Your task to perform on an android device: turn on sleep mode Image 0: 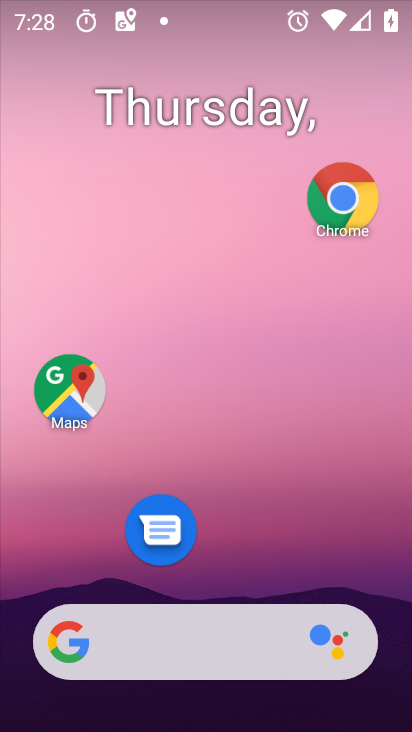
Step 0: drag from (250, 651) to (151, 245)
Your task to perform on an android device: turn on sleep mode Image 1: 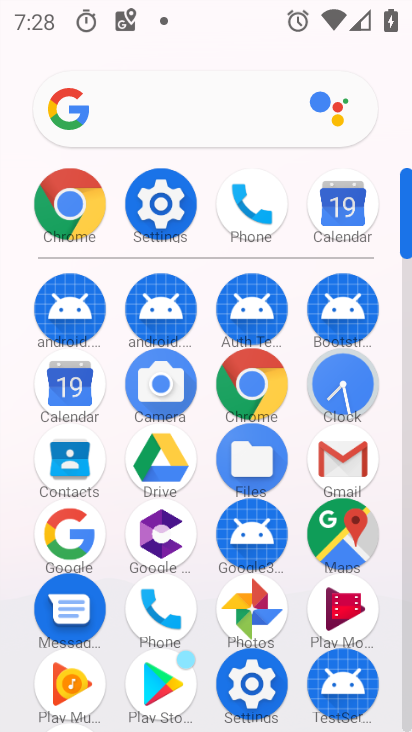
Step 1: click (142, 223)
Your task to perform on an android device: turn on sleep mode Image 2: 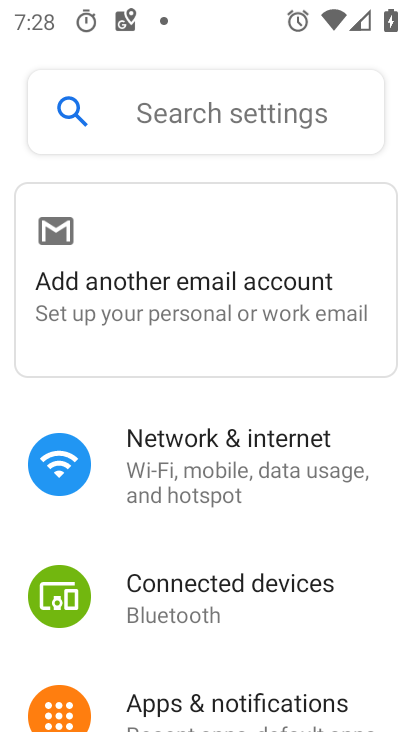
Step 2: click (154, 116)
Your task to perform on an android device: turn on sleep mode Image 3: 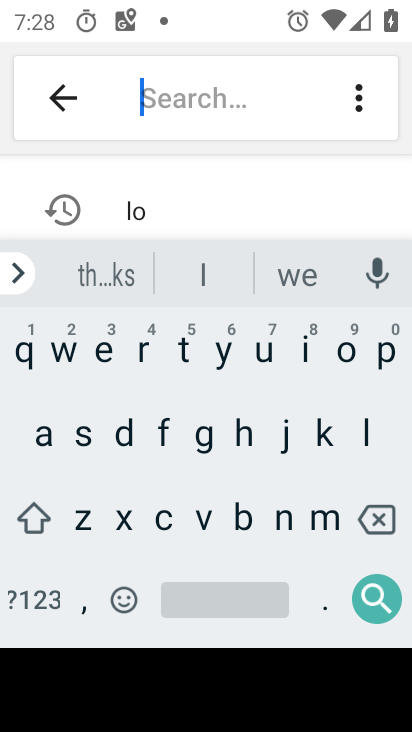
Step 3: click (81, 436)
Your task to perform on an android device: turn on sleep mode Image 4: 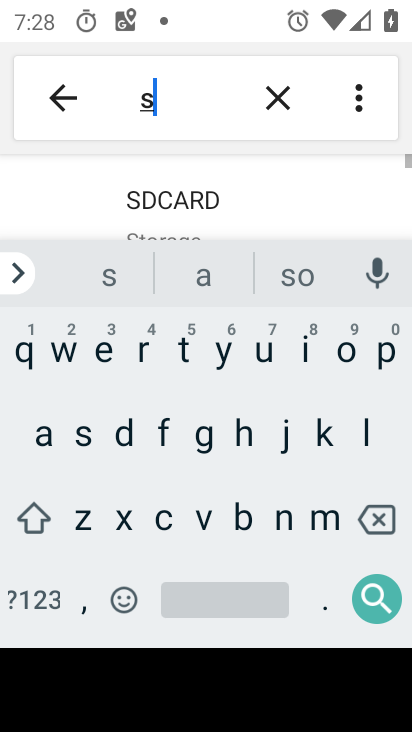
Step 4: click (364, 423)
Your task to perform on an android device: turn on sleep mode Image 5: 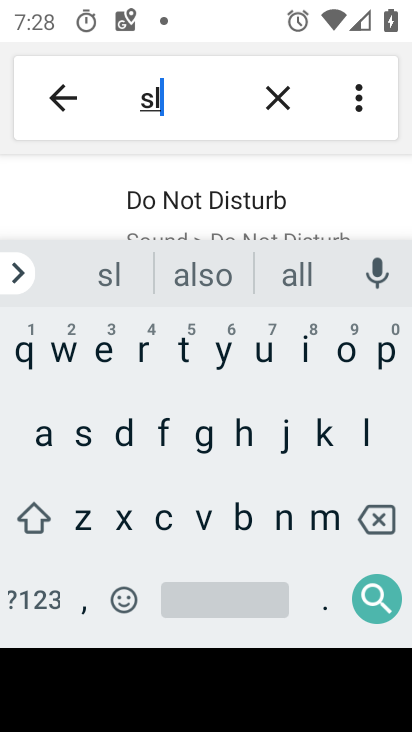
Step 5: click (166, 194)
Your task to perform on an android device: turn on sleep mode Image 6: 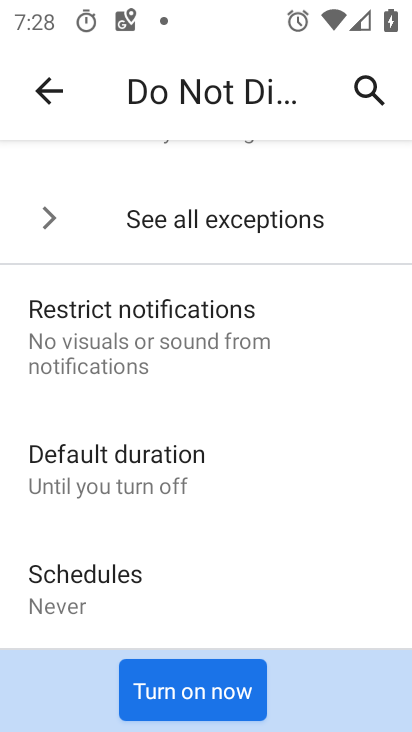
Step 6: click (188, 673)
Your task to perform on an android device: turn on sleep mode Image 7: 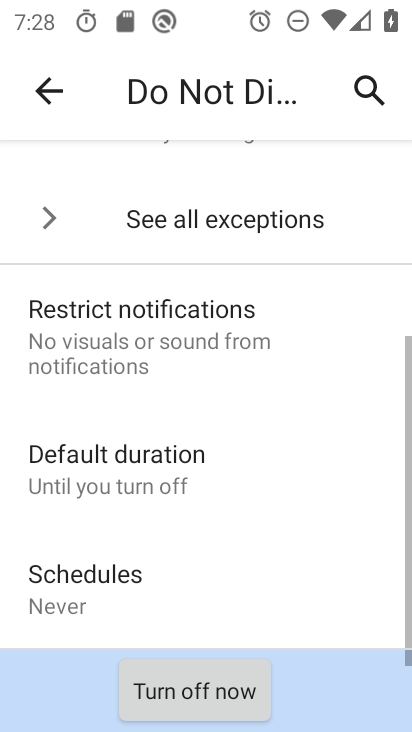
Step 7: task complete